Your task to perform on an android device: Open Yahoo.com Image 0: 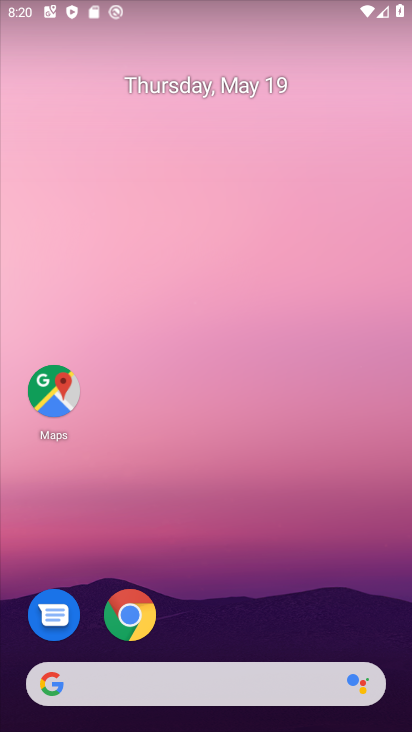
Step 0: click (133, 618)
Your task to perform on an android device: Open Yahoo.com Image 1: 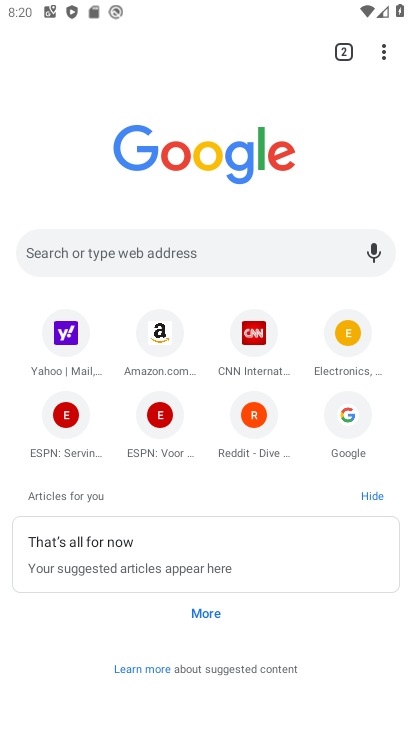
Step 1: click (57, 335)
Your task to perform on an android device: Open Yahoo.com Image 2: 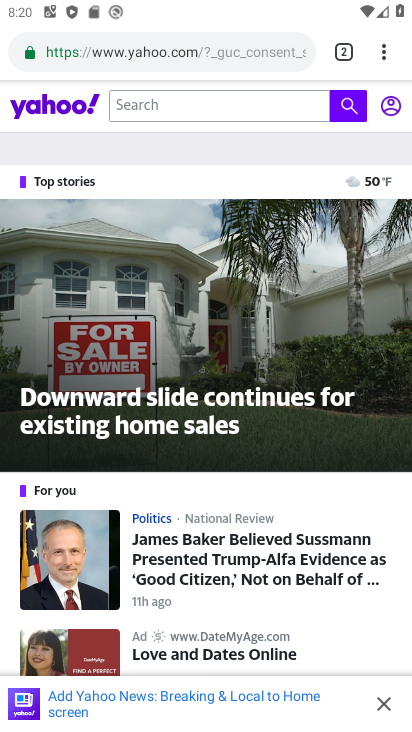
Step 2: task complete